Your task to perform on an android device: find which apps use the phone's location Image 0: 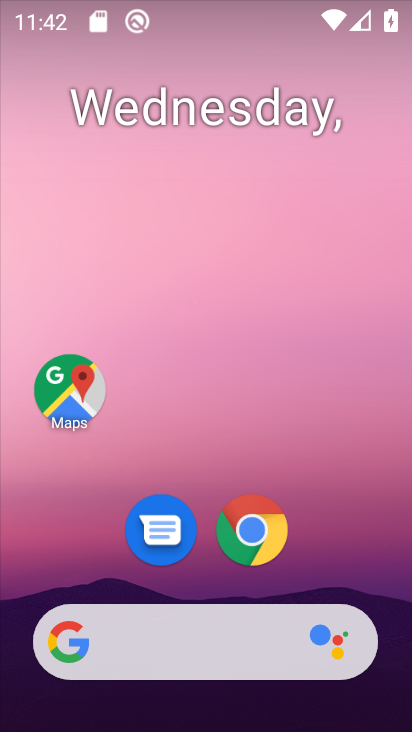
Step 0: drag from (238, 632) to (209, 261)
Your task to perform on an android device: find which apps use the phone's location Image 1: 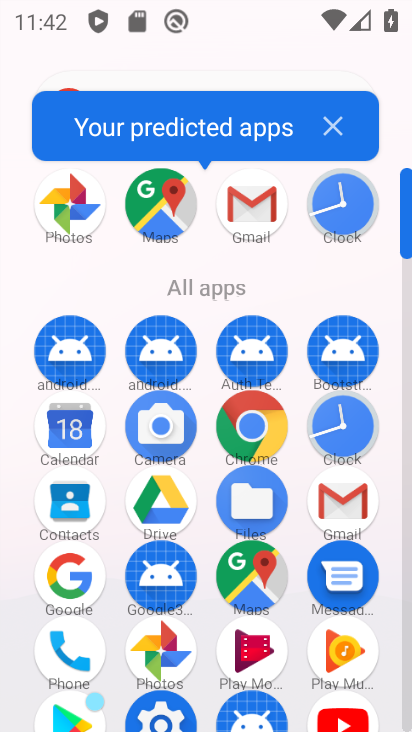
Step 1: click (159, 707)
Your task to perform on an android device: find which apps use the phone's location Image 2: 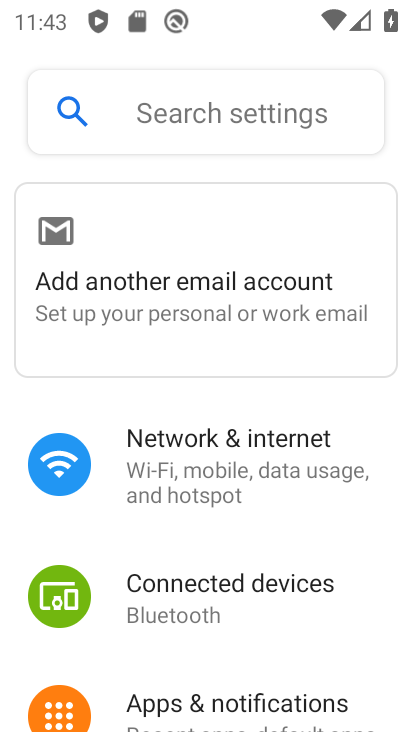
Step 2: drag from (198, 656) to (155, 363)
Your task to perform on an android device: find which apps use the phone's location Image 3: 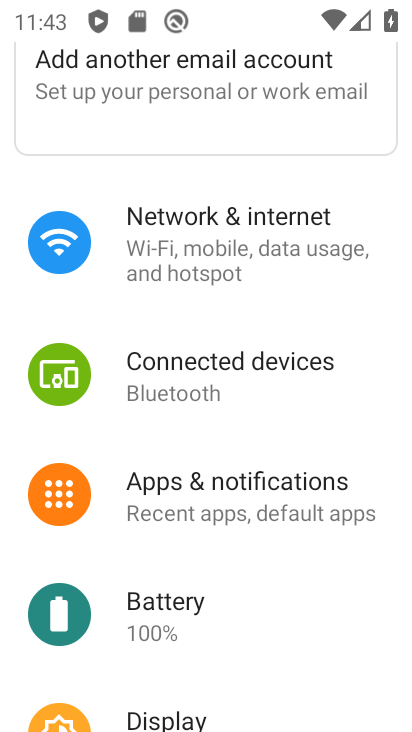
Step 3: drag from (129, 588) to (109, 200)
Your task to perform on an android device: find which apps use the phone's location Image 4: 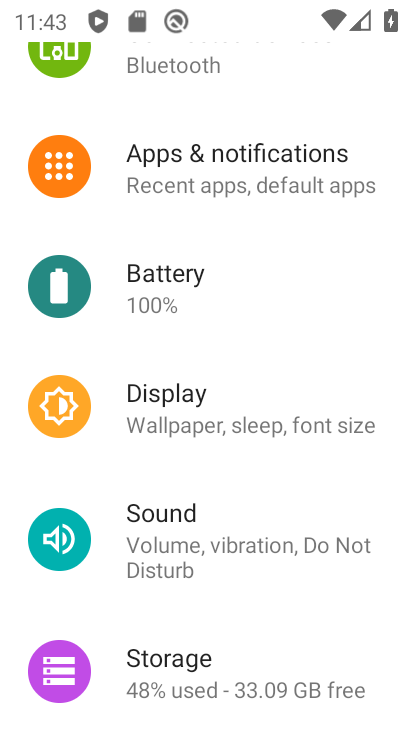
Step 4: drag from (180, 569) to (155, 294)
Your task to perform on an android device: find which apps use the phone's location Image 5: 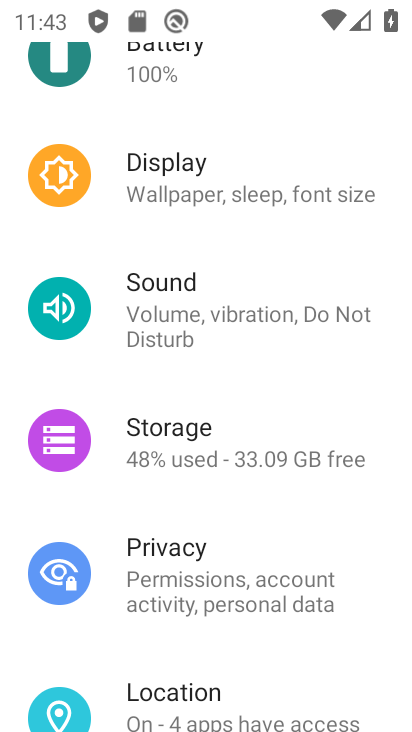
Step 5: click (162, 695)
Your task to perform on an android device: find which apps use the phone's location Image 6: 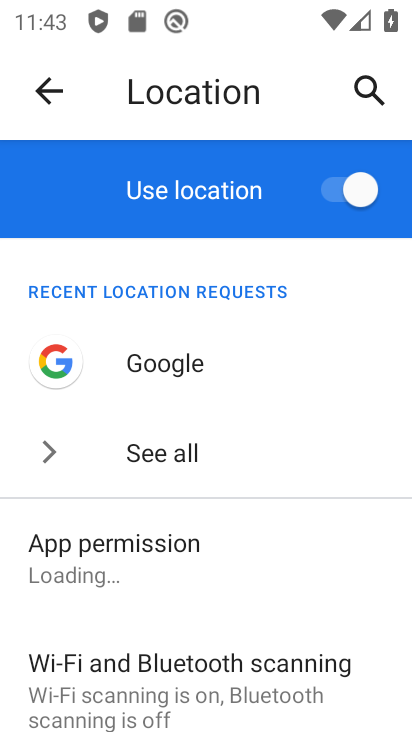
Step 6: click (96, 562)
Your task to perform on an android device: find which apps use the phone's location Image 7: 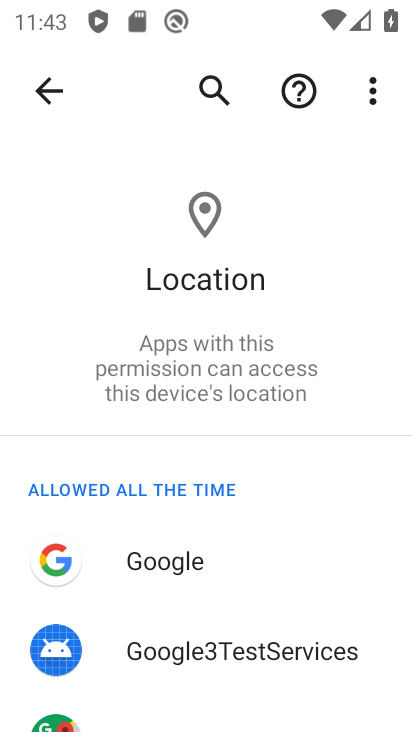
Step 7: task complete